Your task to perform on an android device: Go to sound settings Image 0: 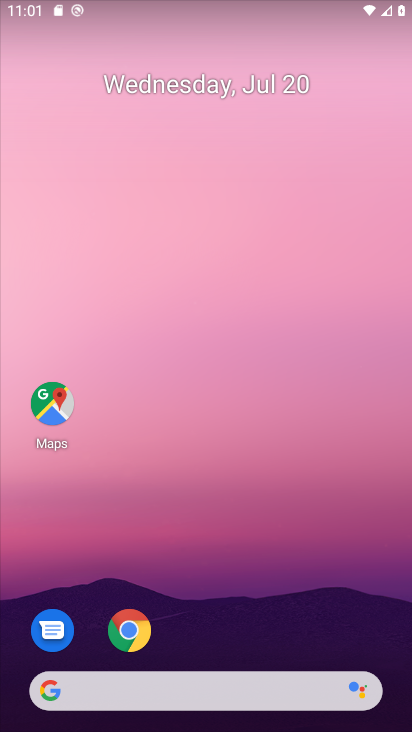
Step 0: drag from (209, 613) to (195, 228)
Your task to perform on an android device: Go to sound settings Image 1: 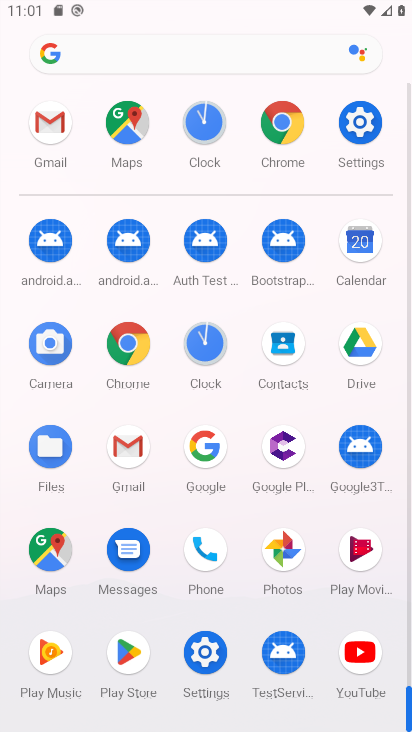
Step 1: click (339, 115)
Your task to perform on an android device: Go to sound settings Image 2: 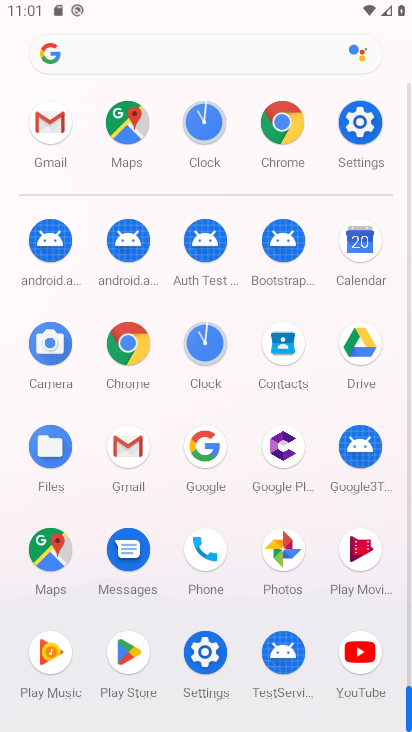
Step 2: click (355, 119)
Your task to perform on an android device: Go to sound settings Image 3: 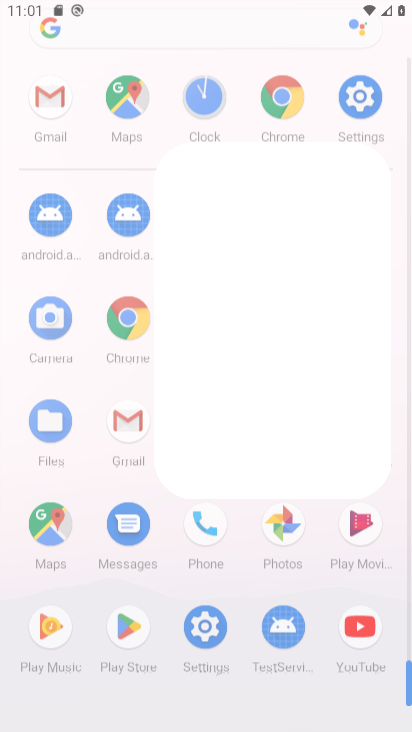
Step 3: click (356, 119)
Your task to perform on an android device: Go to sound settings Image 4: 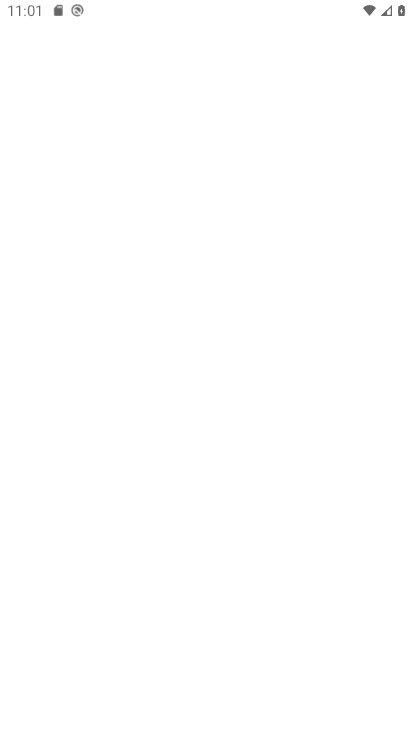
Step 4: click (359, 121)
Your task to perform on an android device: Go to sound settings Image 5: 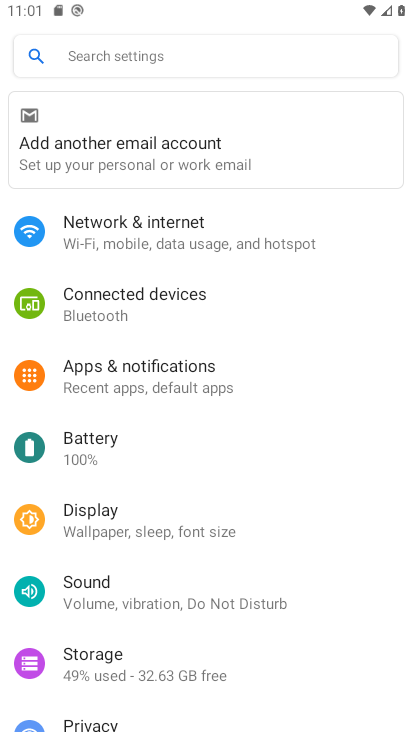
Step 5: task complete